Your task to perform on an android device: move an email to a new category in the gmail app Image 0: 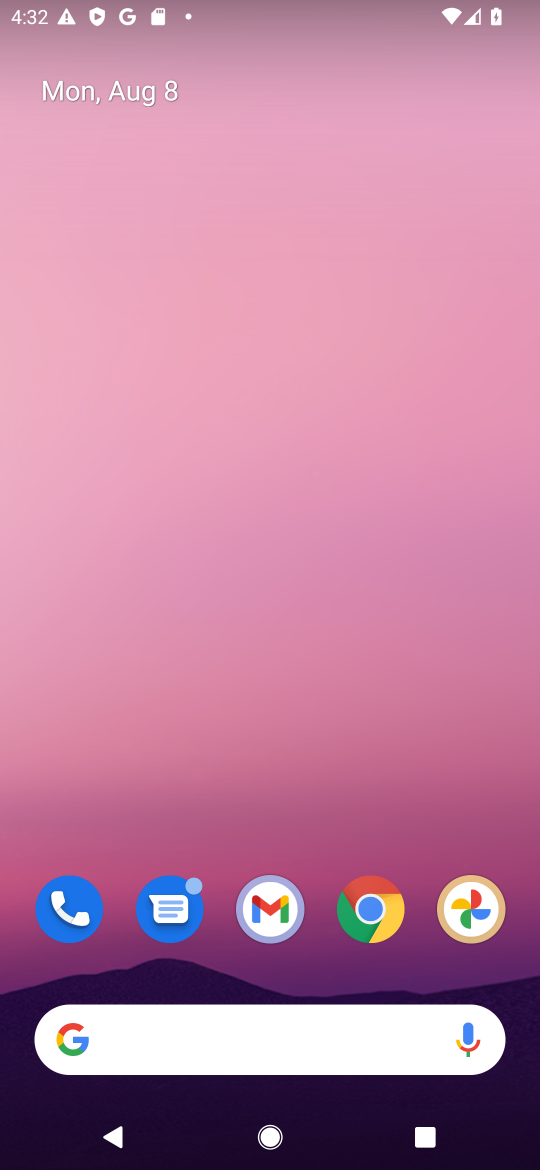
Step 0: press home button
Your task to perform on an android device: move an email to a new category in the gmail app Image 1: 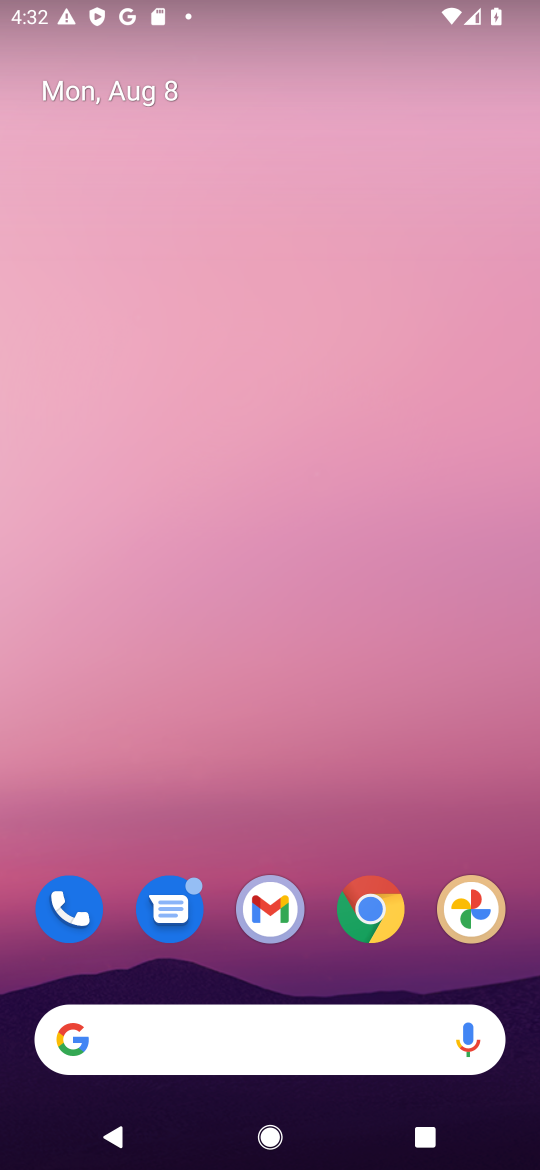
Step 1: click (265, 901)
Your task to perform on an android device: move an email to a new category in the gmail app Image 2: 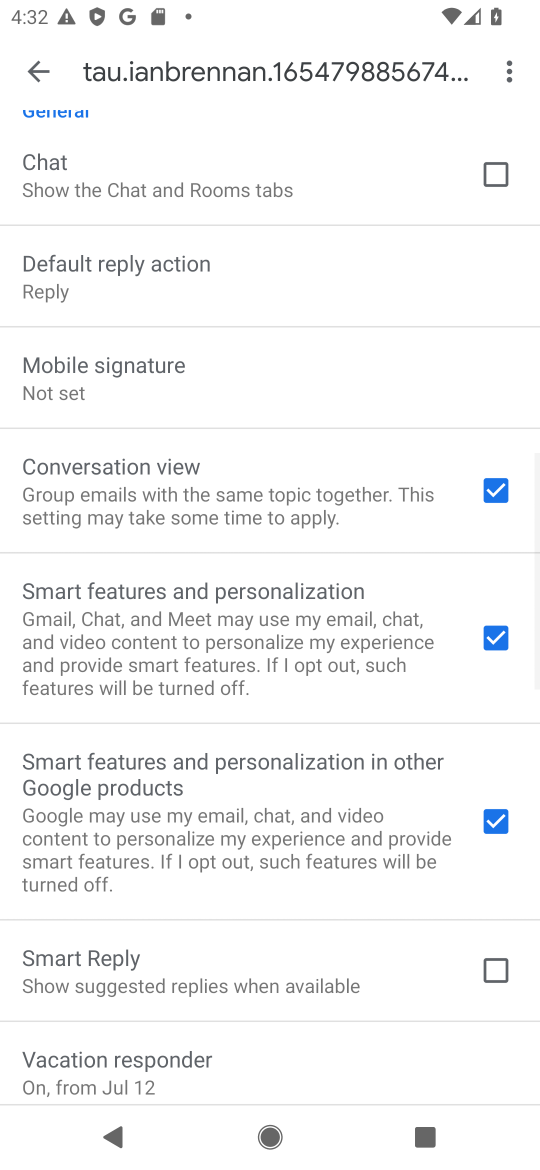
Step 2: click (37, 79)
Your task to perform on an android device: move an email to a new category in the gmail app Image 3: 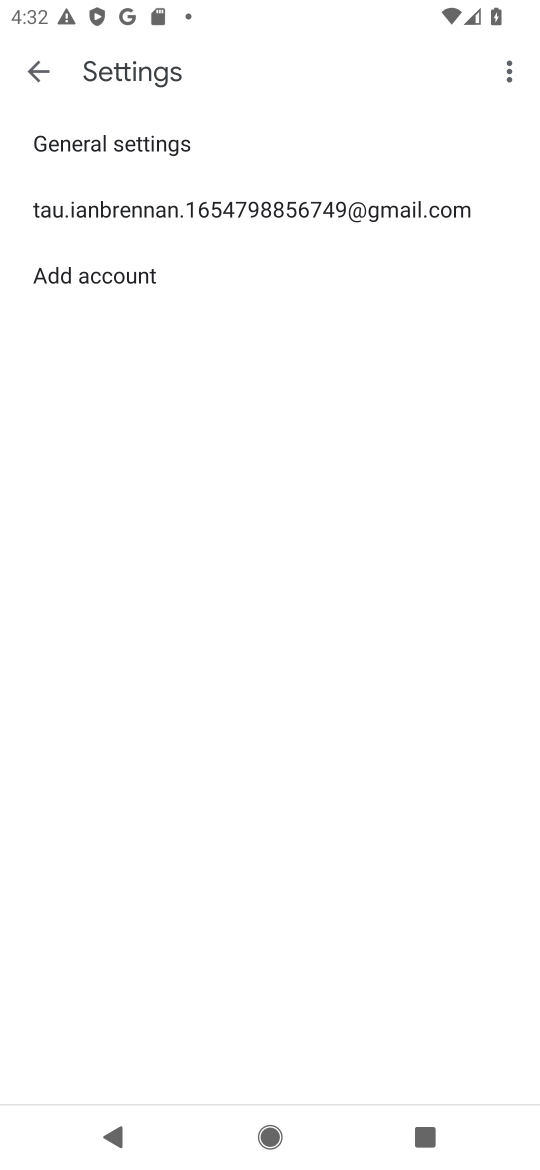
Step 3: click (37, 79)
Your task to perform on an android device: move an email to a new category in the gmail app Image 4: 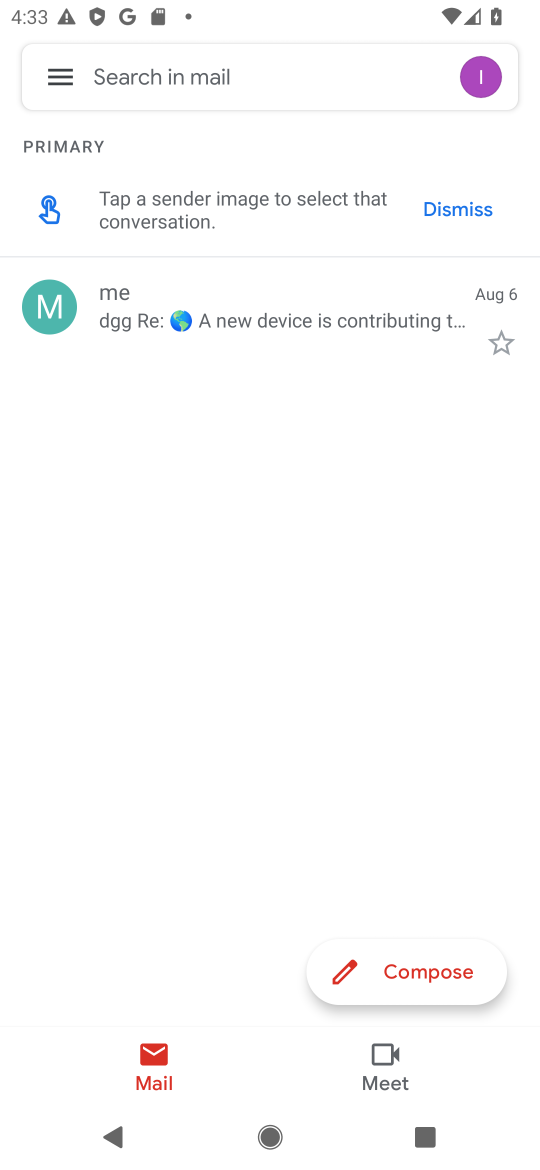
Step 4: click (55, 309)
Your task to perform on an android device: move an email to a new category in the gmail app Image 5: 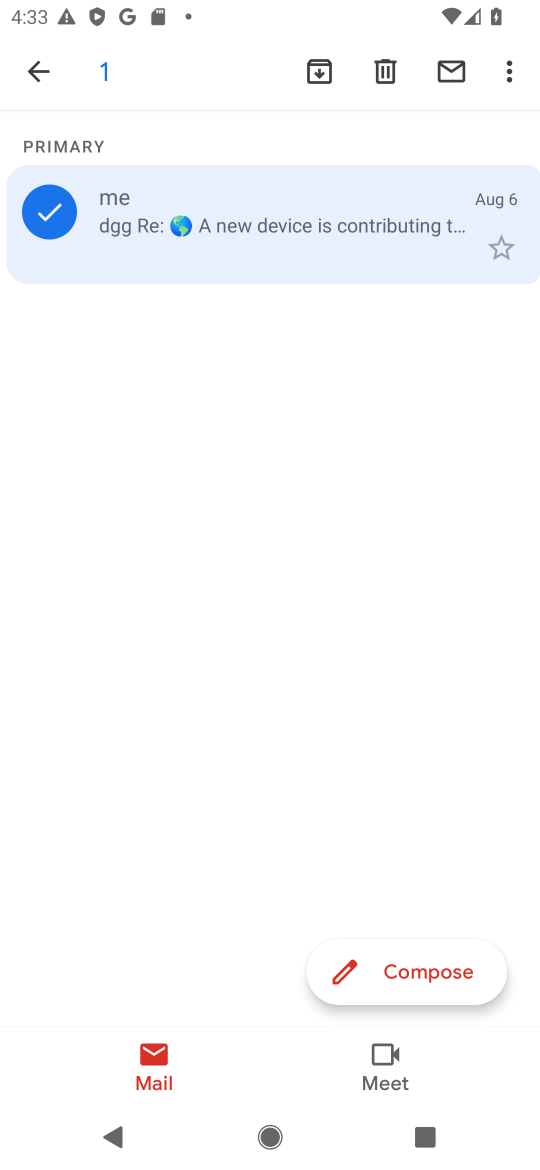
Step 5: click (504, 73)
Your task to perform on an android device: move an email to a new category in the gmail app Image 6: 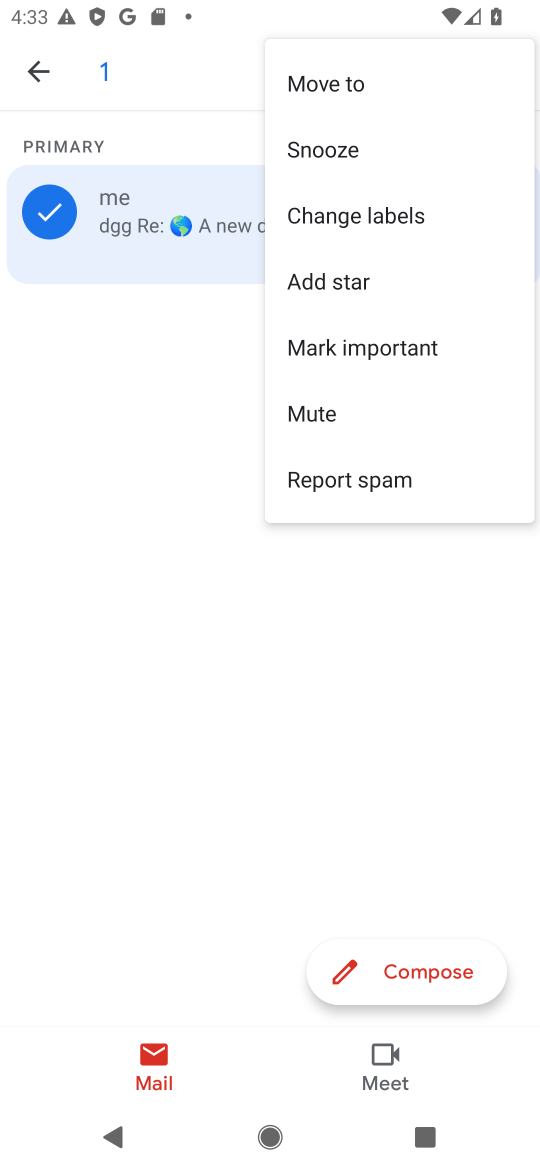
Step 6: click (351, 86)
Your task to perform on an android device: move an email to a new category in the gmail app Image 7: 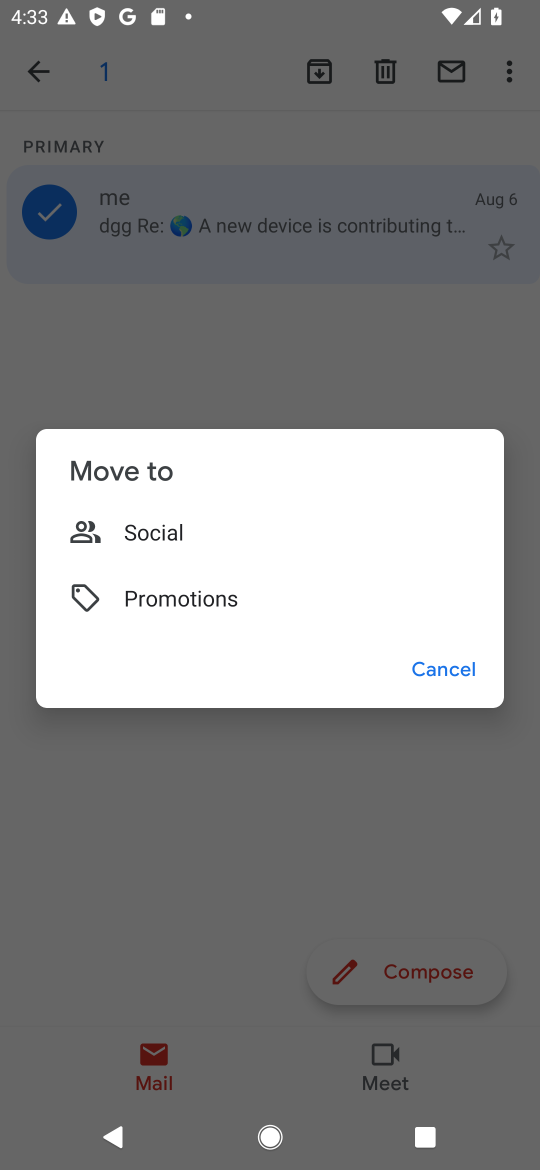
Step 7: click (171, 533)
Your task to perform on an android device: move an email to a new category in the gmail app Image 8: 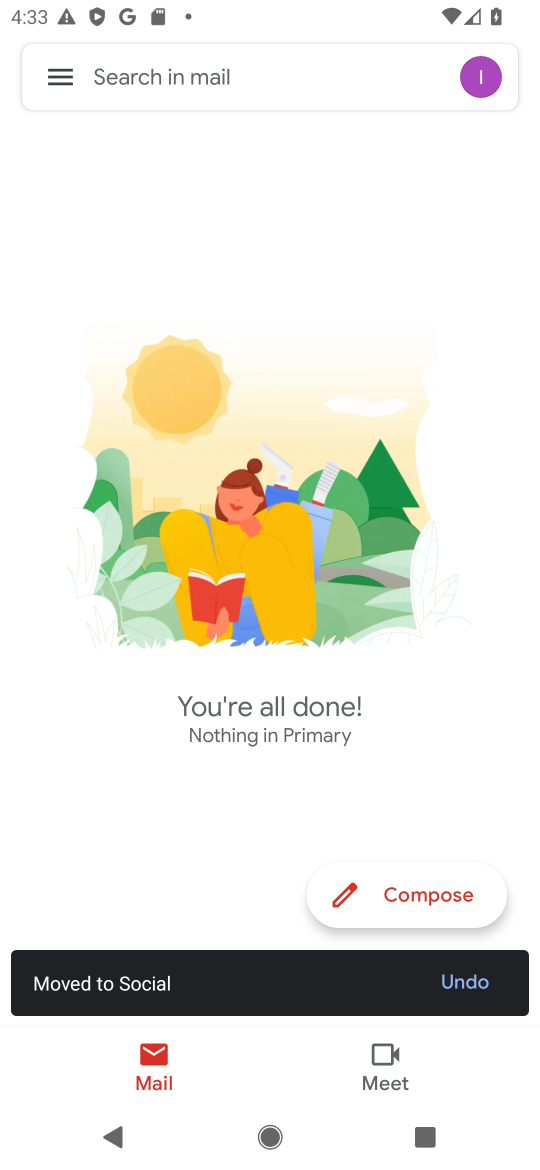
Step 8: task complete